Your task to perform on an android device: Search for the best rated headphones on Walmart Image 0: 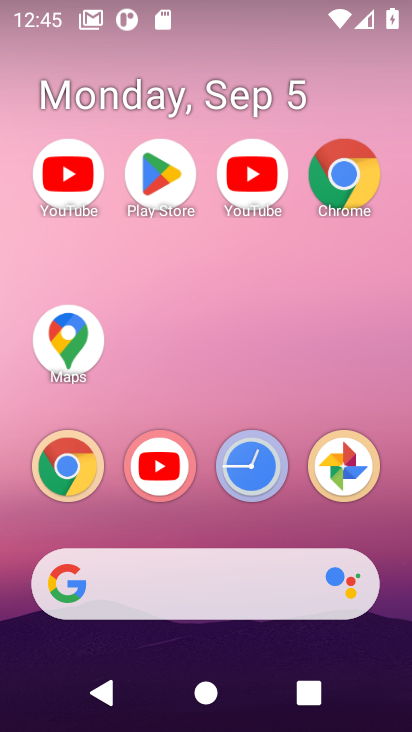
Step 0: drag from (198, 500) to (210, 92)
Your task to perform on an android device: Search for the best rated headphones on Walmart Image 1: 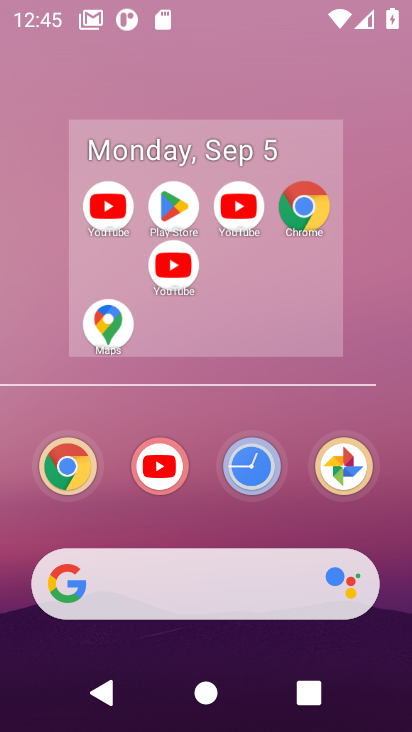
Step 1: click (209, 54)
Your task to perform on an android device: Search for the best rated headphones on Walmart Image 2: 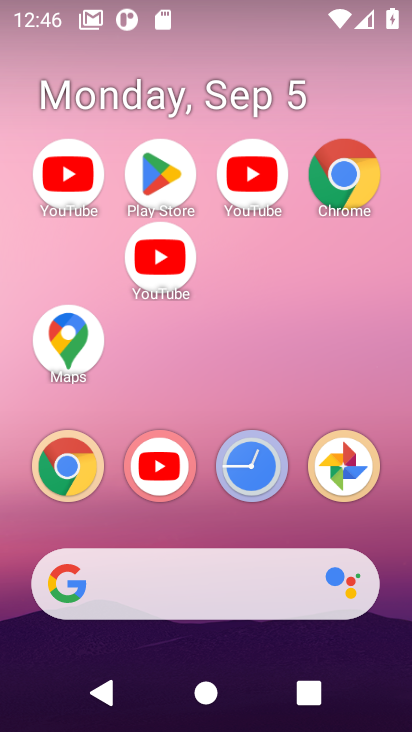
Step 2: drag from (216, 402) to (271, 11)
Your task to perform on an android device: Search for the best rated headphones on Walmart Image 3: 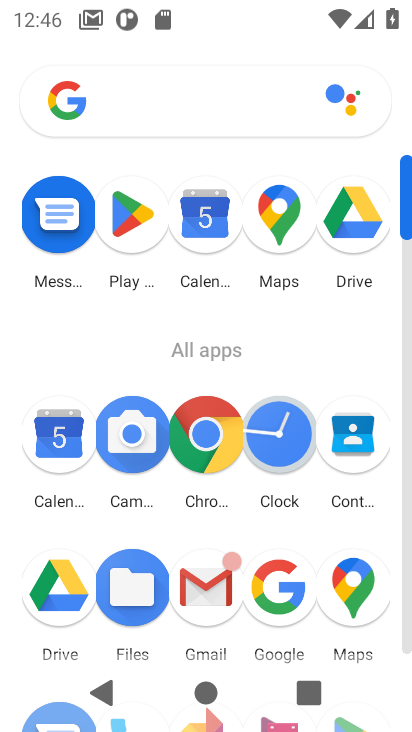
Step 3: click (196, 431)
Your task to perform on an android device: Search for the best rated headphones on Walmart Image 4: 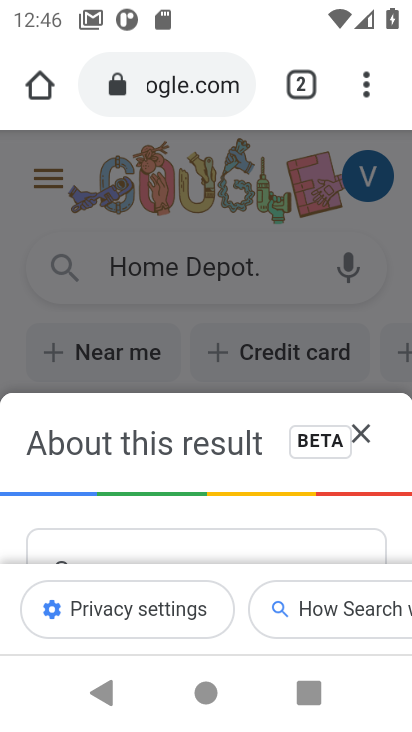
Step 4: click (174, 74)
Your task to perform on an android device: Search for the best rated headphones on Walmart Image 5: 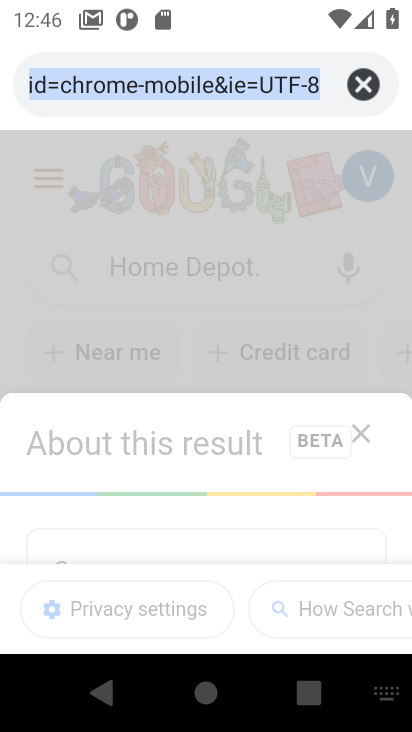
Step 5: type " Walmart"
Your task to perform on an android device: Search for the best rated headphones on Walmart Image 6: 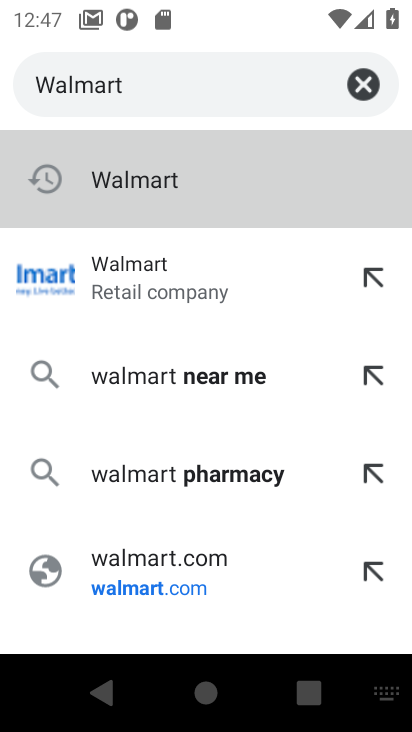
Step 6: click (152, 176)
Your task to perform on an android device: Search for the best rated headphones on Walmart Image 7: 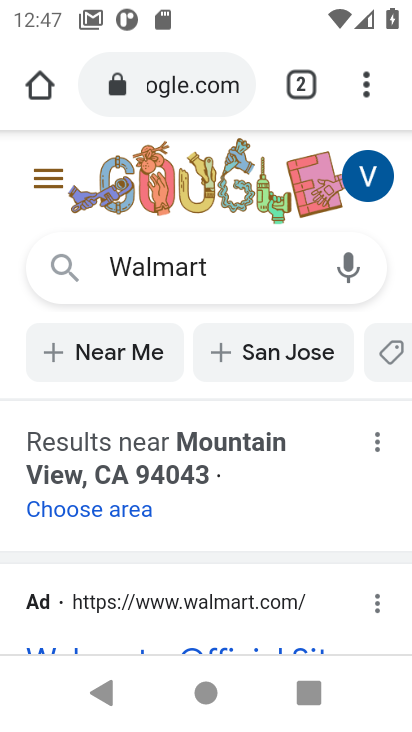
Step 7: drag from (271, 533) to (266, 78)
Your task to perform on an android device: Search for the best rated headphones on Walmart Image 8: 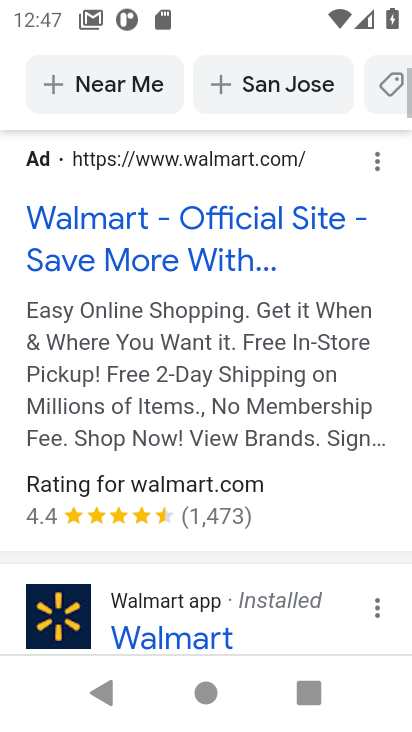
Step 8: drag from (277, 562) to (388, 491)
Your task to perform on an android device: Search for the best rated headphones on Walmart Image 9: 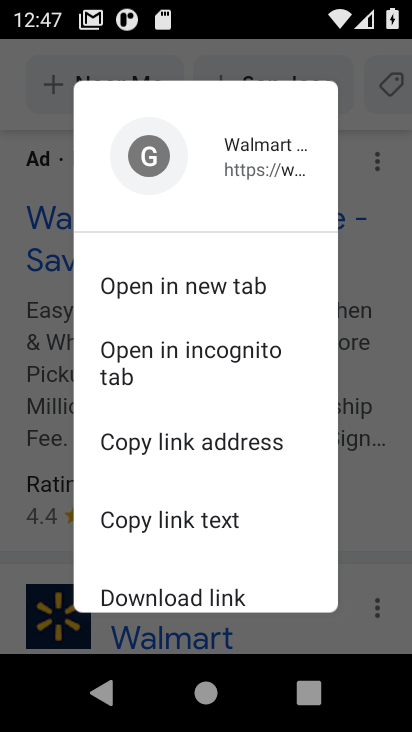
Step 9: click (8, 171)
Your task to perform on an android device: Search for the best rated headphones on Walmart Image 10: 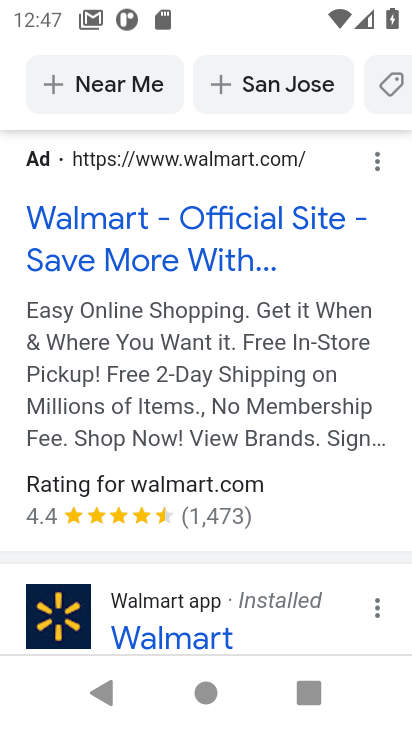
Step 10: click (67, 204)
Your task to perform on an android device: Search for the best rated headphones on Walmart Image 11: 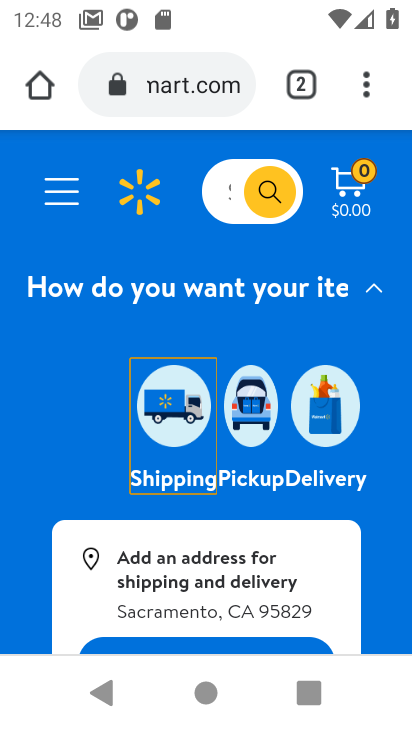
Step 11: click (262, 184)
Your task to perform on an android device: Search for the best rated headphones on Walmart Image 12: 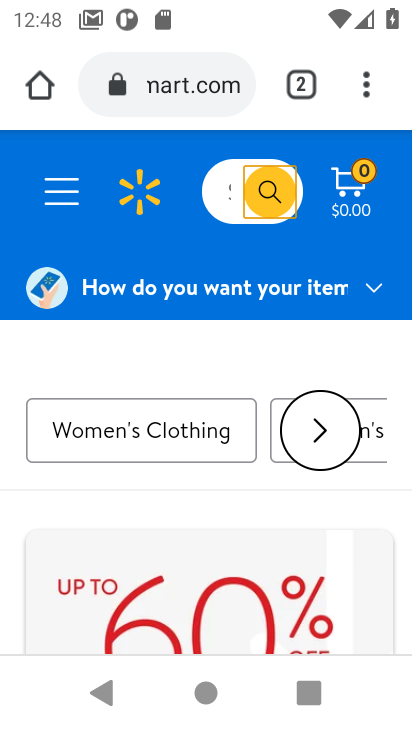
Step 12: click (264, 182)
Your task to perform on an android device: Search for the best rated headphones on Walmart Image 13: 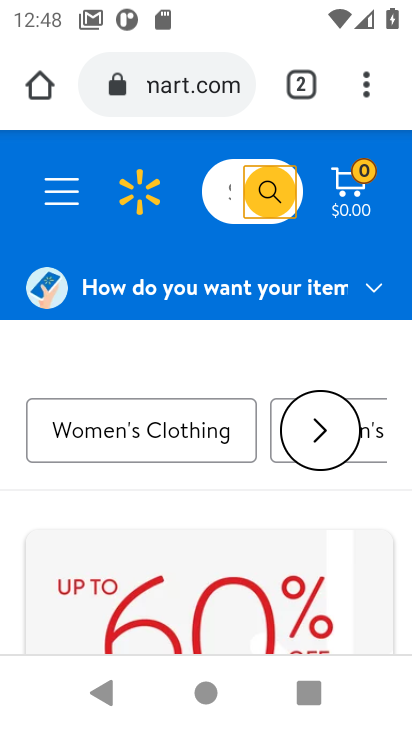
Step 13: click (262, 187)
Your task to perform on an android device: Search for the best rated headphones on Walmart Image 14: 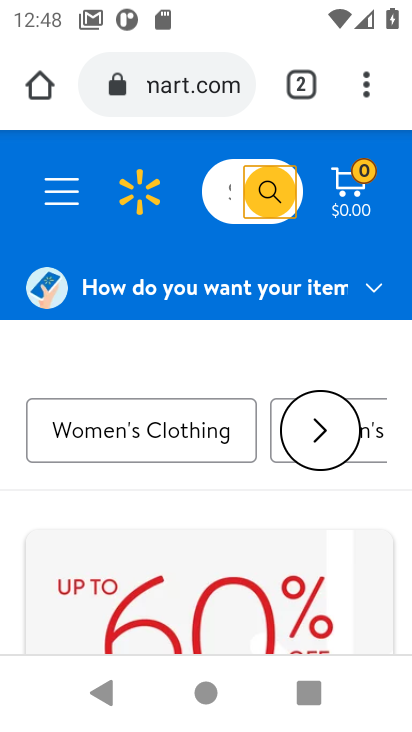
Step 14: click (259, 185)
Your task to perform on an android device: Search for the best rated headphones on Walmart Image 15: 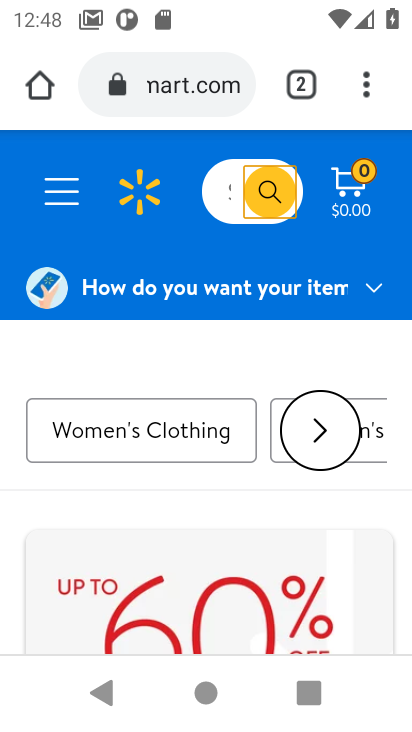
Step 15: task complete